Your task to perform on an android device: What's the weather? Image 0: 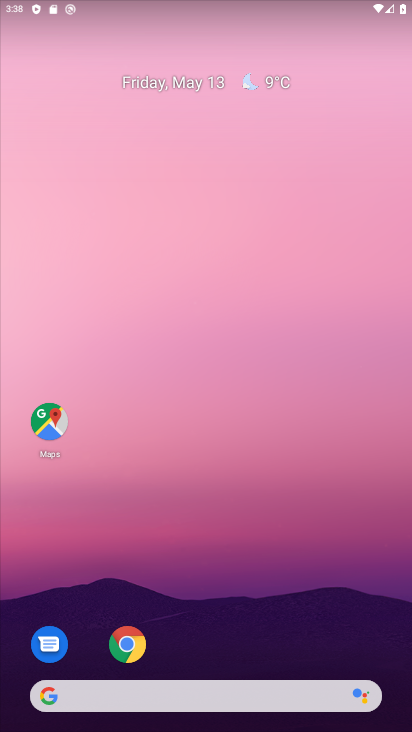
Step 0: click (129, 648)
Your task to perform on an android device: What's the weather? Image 1: 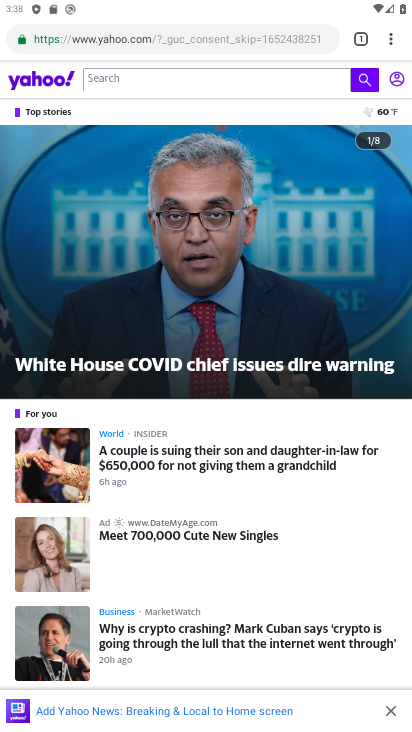
Step 1: click (152, 41)
Your task to perform on an android device: What's the weather? Image 2: 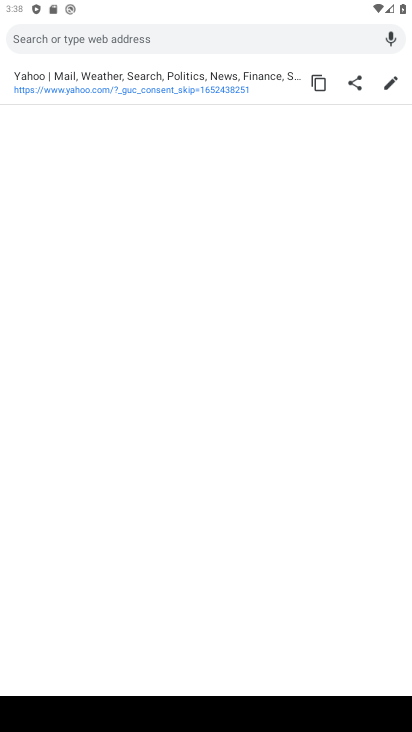
Step 2: type "whats the weather"
Your task to perform on an android device: What's the weather? Image 3: 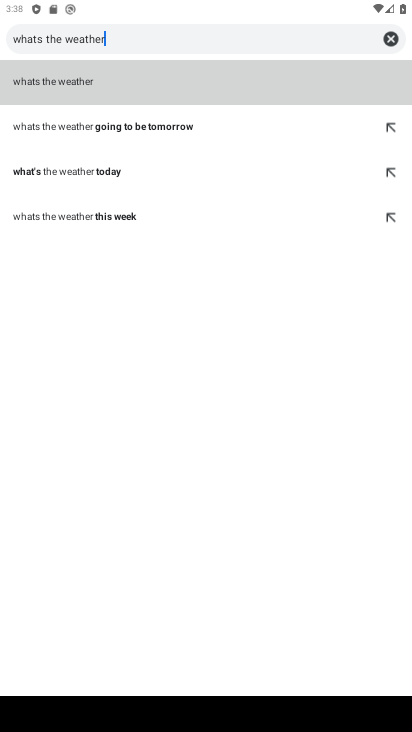
Step 3: click (94, 91)
Your task to perform on an android device: What's the weather? Image 4: 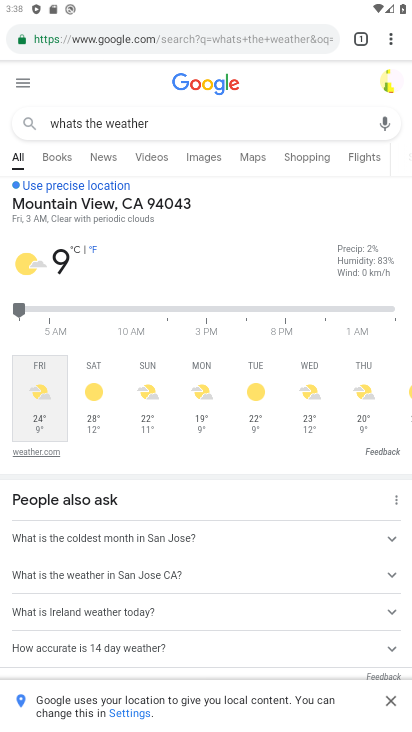
Step 4: task complete